Your task to perform on an android device: Show me recent news Image 0: 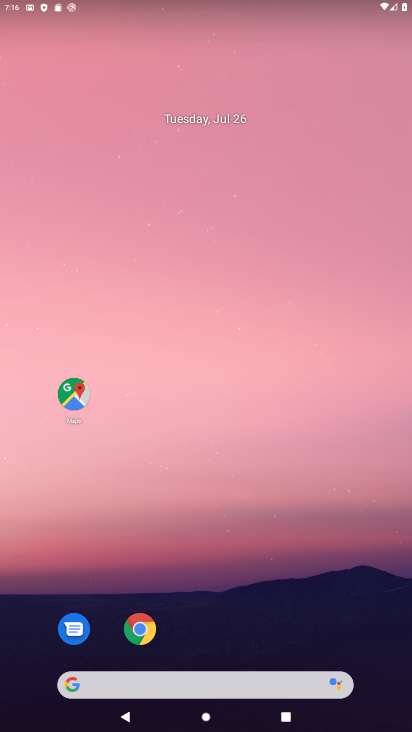
Step 0: click (202, 686)
Your task to perform on an android device: Show me recent news Image 1: 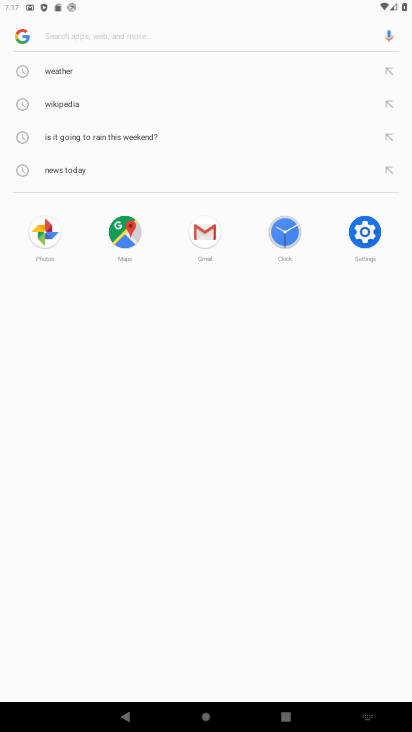
Step 1: type "recent news"
Your task to perform on an android device: Show me recent news Image 2: 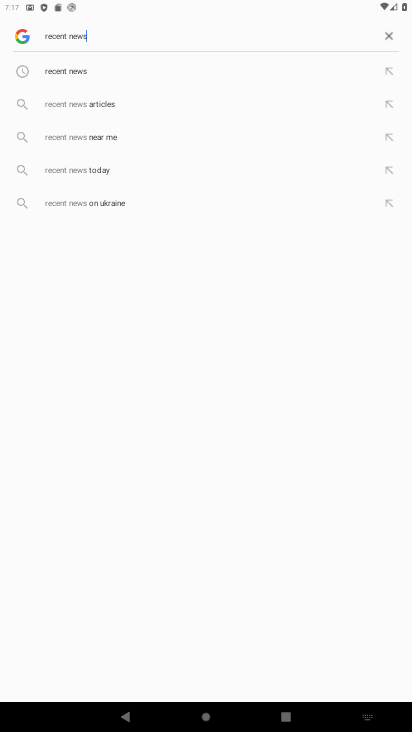
Step 2: click (76, 72)
Your task to perform on an android device: Show me recent news Image 3: 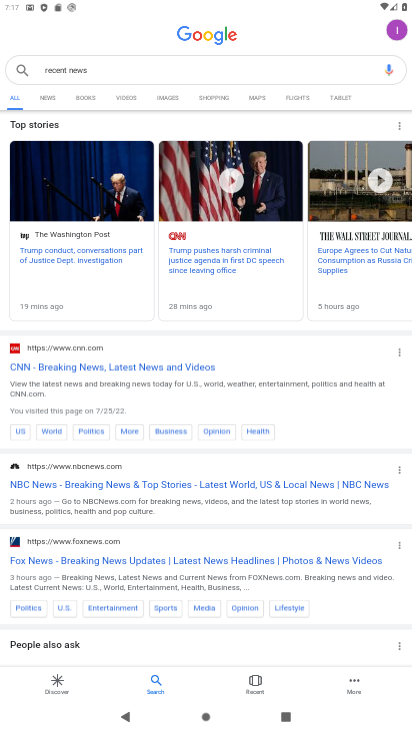
Step 3: task complete